Your task to perform on an android device: open chrome and create a bookmark for the current page Image 0: 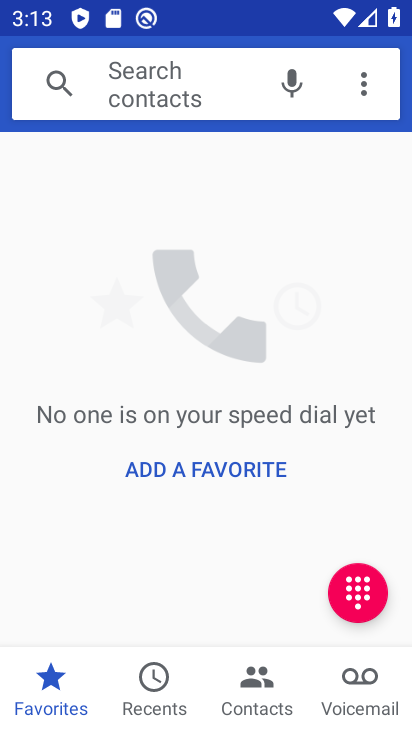
Step 0: press home button
Your task to perform on an android device: open chrome and create a bookmark for the current page Image 1: 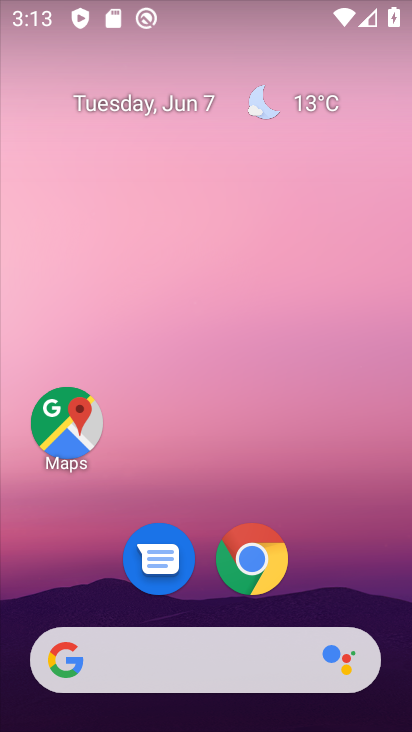
Step 1: click (247, 563)
Your task to perform on an android device: open chrome and create a bookmark for the current page Image 2: 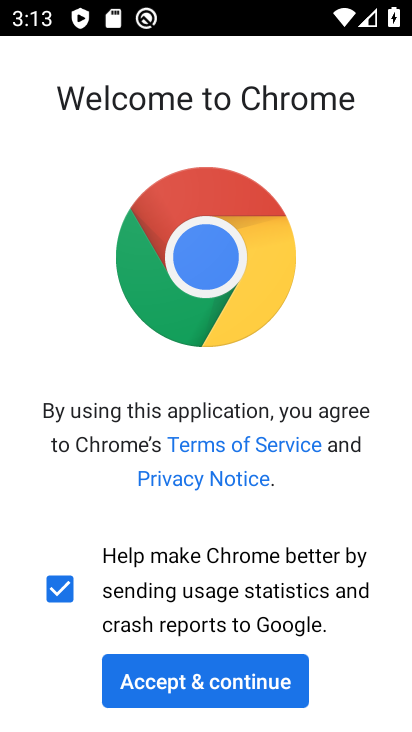
Step 2: click (190, 674)
Your task to perform on an android device: open chrome and create a bookmark for the current page Image 3: 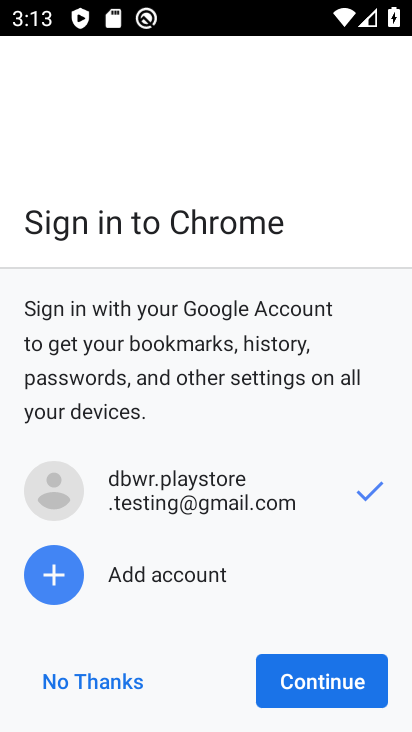
Step 3: click (322, 676)
Your task to perform on an android device: open chrome and create a bookmark for the current page Image 4: 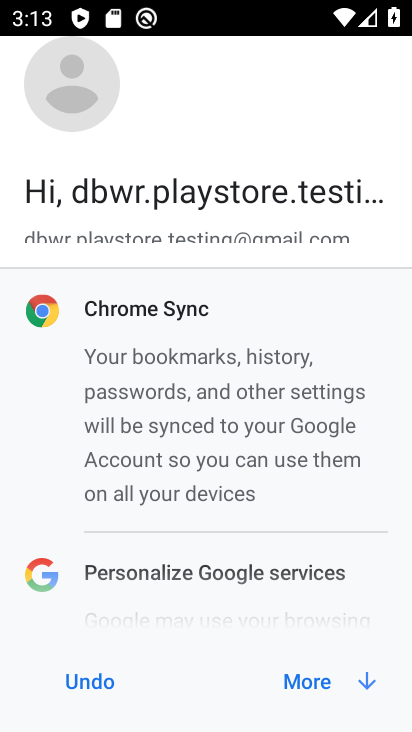
Step 4: click (308, 678)
Your task to perform on an android device: open chrome and create a bookmark for the current page Image 5: 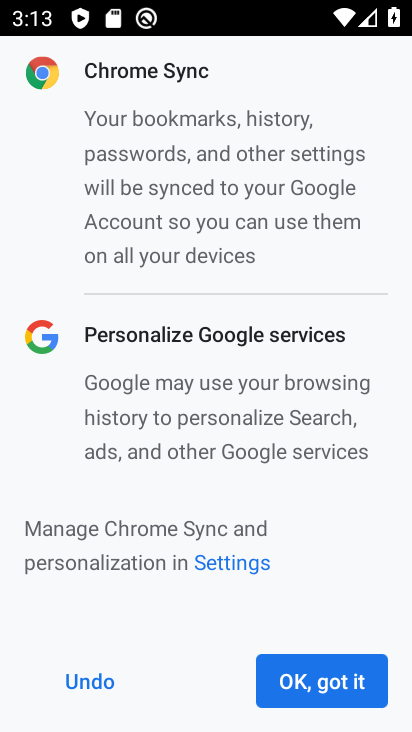
Step 5: click (308, 678)
Your task to perform on an android device: open chrome and create a bookmark for the current page Image 6: 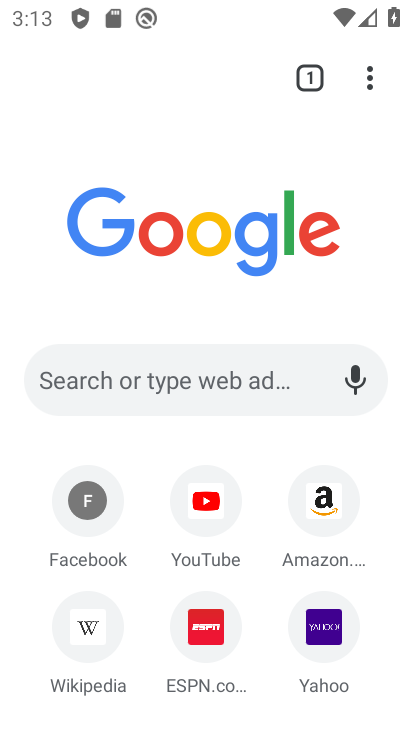
Step 6: click (369, 88)
Your task to perform on an android device: open chrome and create a bookmark for the current page Image 7: 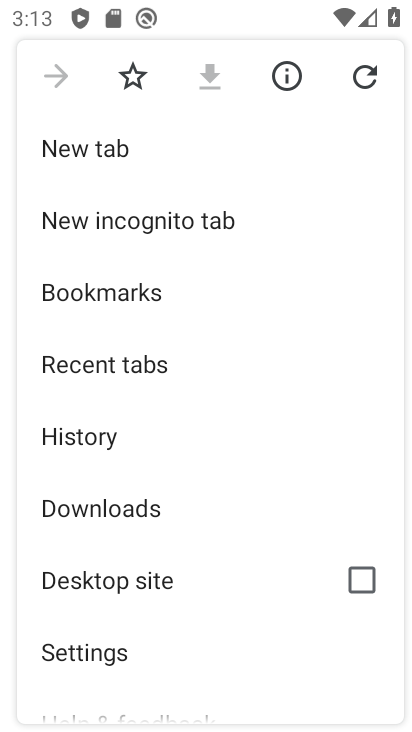
Step 7: click (128, 71)
Your task to perform on an android device: open chrome and create a bookmark for the current page Image 8: 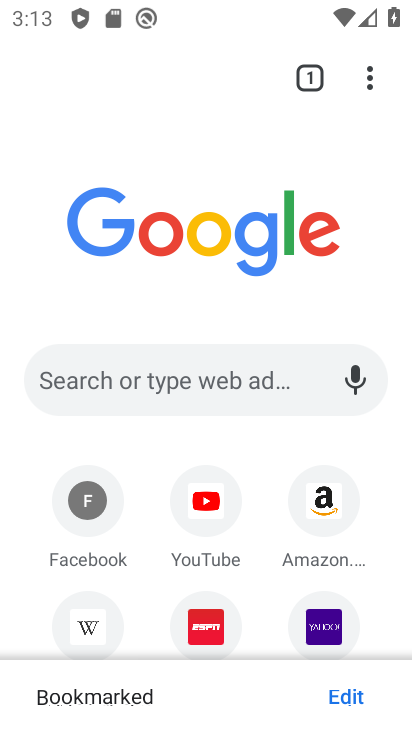
Step 8: task complete